Your task to perform on an android device: star an email in the gmail app Image 0: 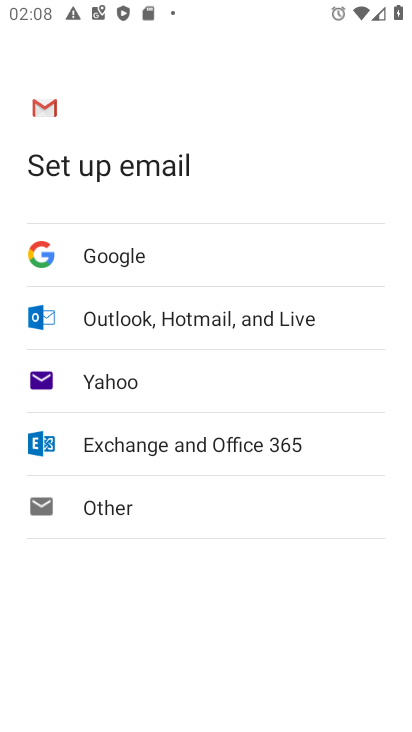
Step 0: press home button
Your task to perform on an android device: star an email in the gmail app Image 1: 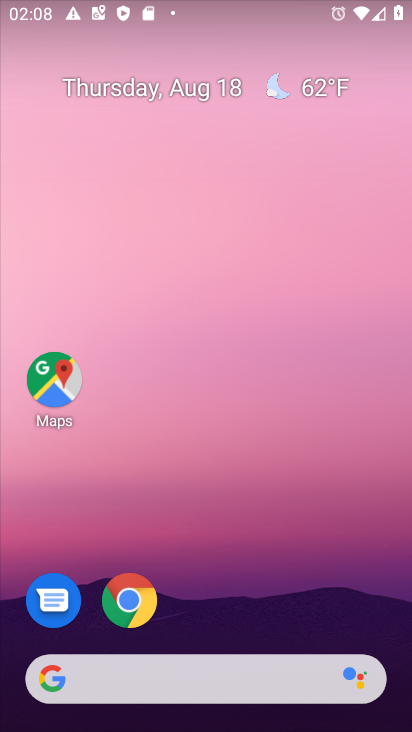
Step 1: drag from (259, 612) to (309, 64)
Your task to perform on an android device: star an email in the gmail app Image 2: 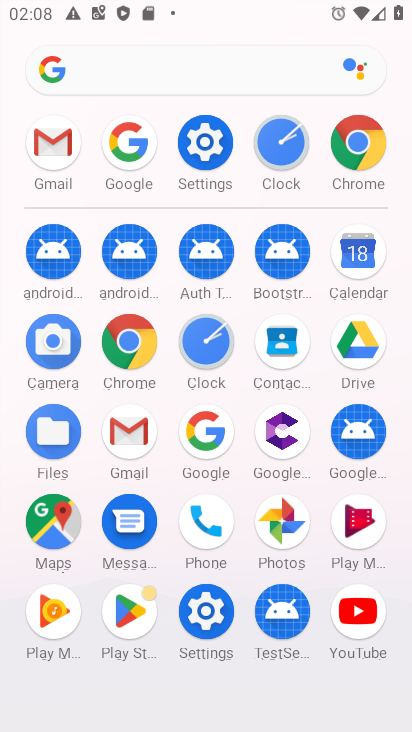
Step 2: click (44, 134)
Your task to perform on an android device: star an email in the gmail app Image 3: 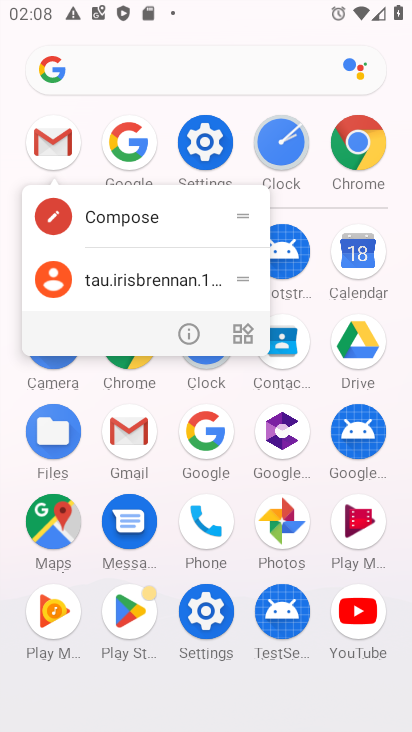
Step 3: click (48, 146)
Your task to perform on an android device: star an email in the gmail app Image 4: 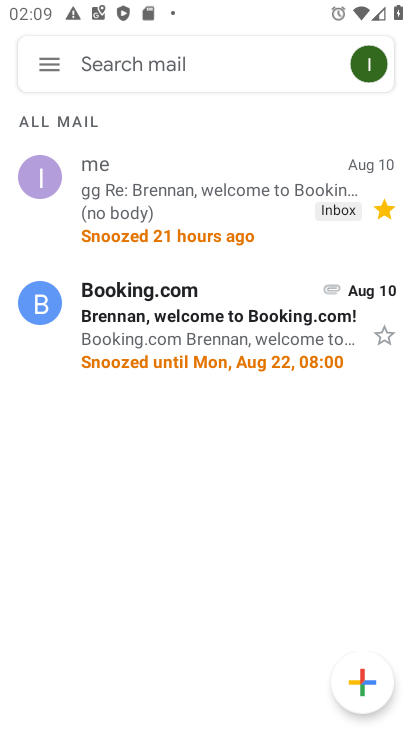
Step 4: task complete